Your task to perform on an android device: read, delete, or share a saved page in the chrome app Image 0: 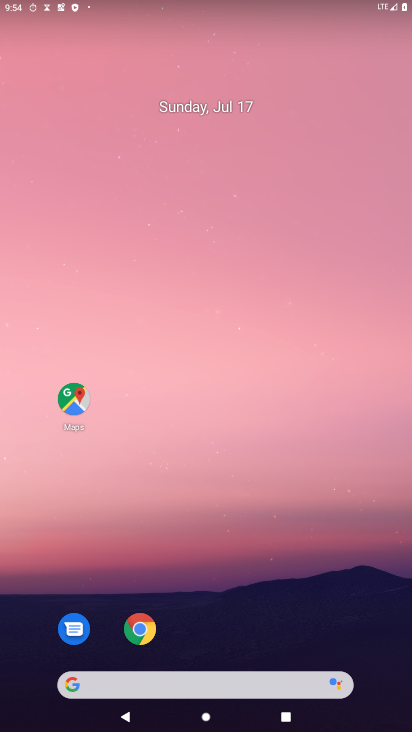
Step 0: click (141, 627)
Your task to perform on an android device: read, delete, or share a saved page in the chrome app Image 1: 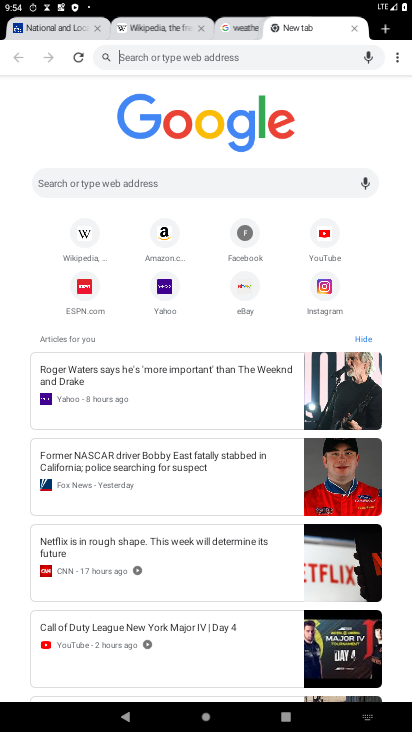
Step 1: click (398, 61)
Your task to perform on an android device: read, delete, or share a saved page in the chrome app Image 2: 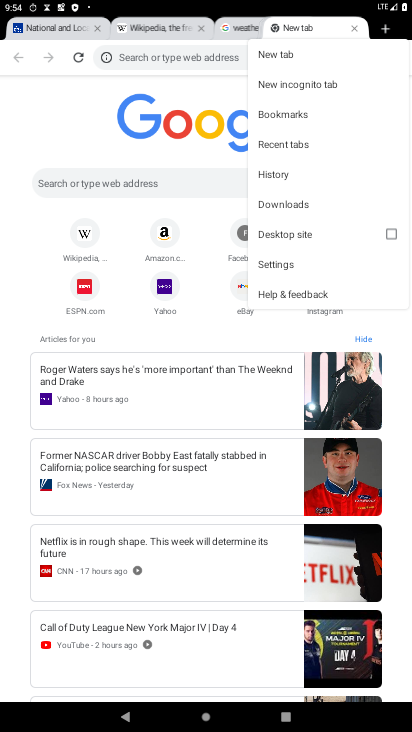
Step 2: click (284, 205)
Your task to perform on an android device: read, delete, or share a saved page in the chrome app Image 3: 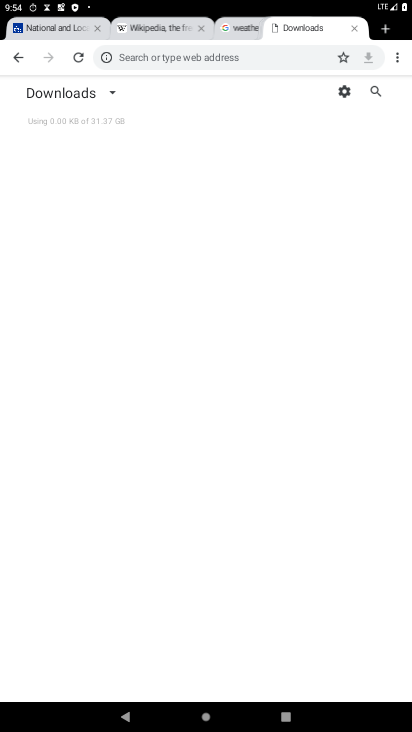
Step 3: task complete